Your task to perform on an android device: check storage Image 0: 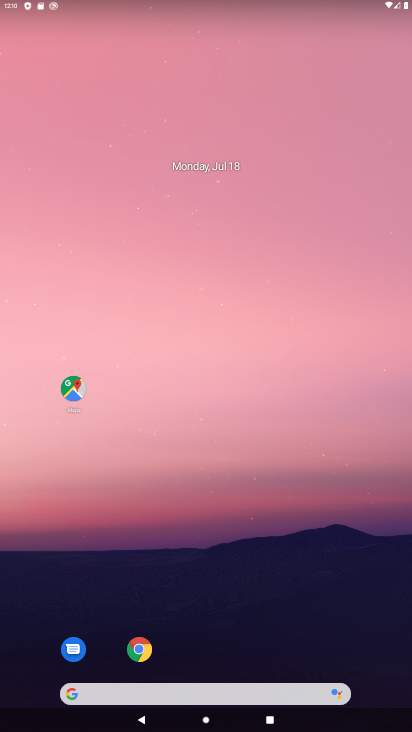
Step 0: drag from (193, 552) to (263, 102)
Your task to perform on an android device: check storage Image 1: 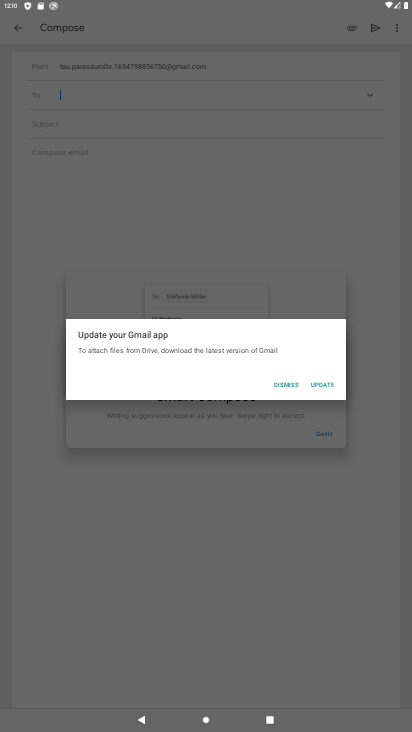
Step 1: press home button
Your task to perform on an android device: check storage Image 2: 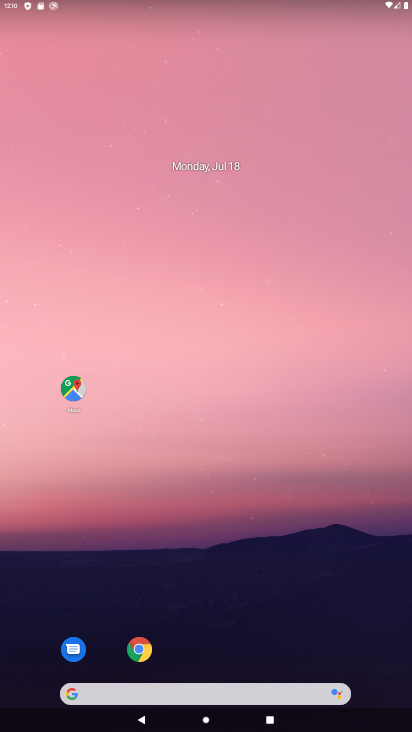
Step 2: click (227, 197)
Your task to perform on an android device: check storage Image 3: 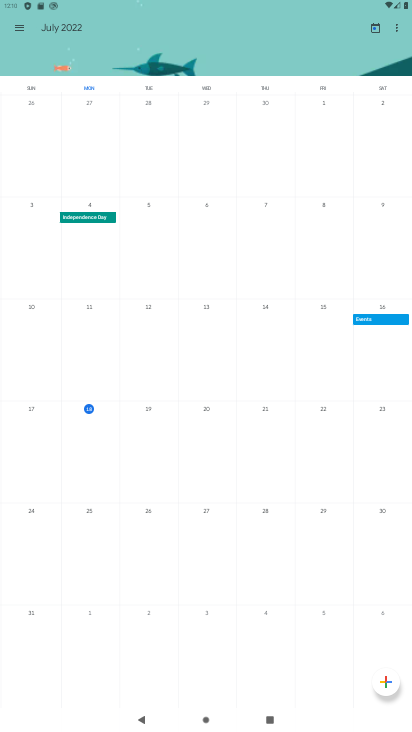
Step 3: press home button
Your task to perform on an android device: check storage Image 4: 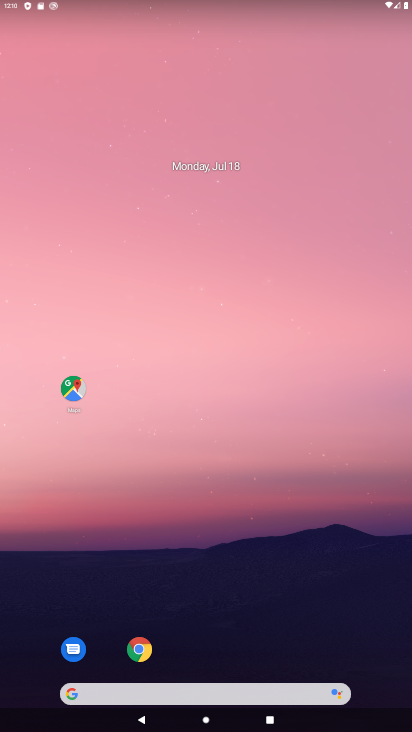
Step 4: drag from (170, 650) to (188, 222)
Your task to perform on an android device: check storage Image 5: 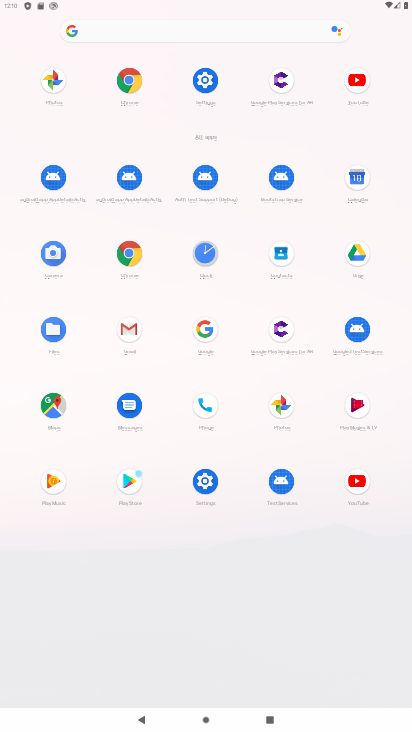
Step 5: click (198, 73)
Your task to perform on an android device: check storage Image 6: 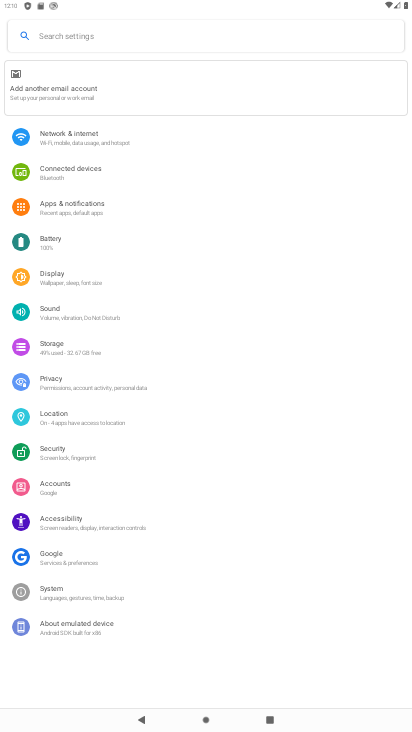
Step 6: click (46, 347)
Your task to perform on an android device: check storage Image 7: 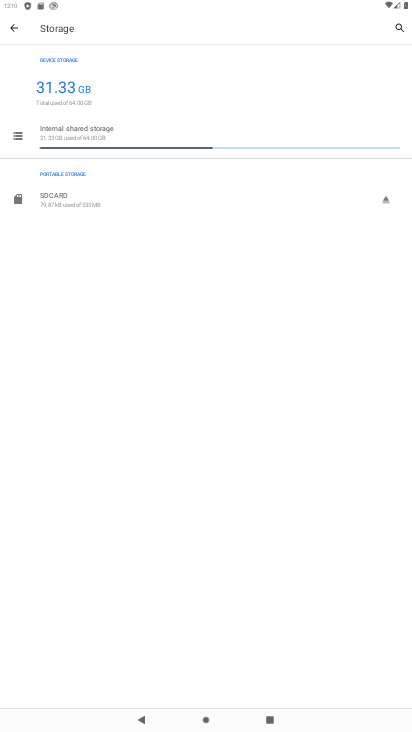
Step 7: task complete